Your task to perform on an android device: toggle notifications settings in the gmail app Image 0: 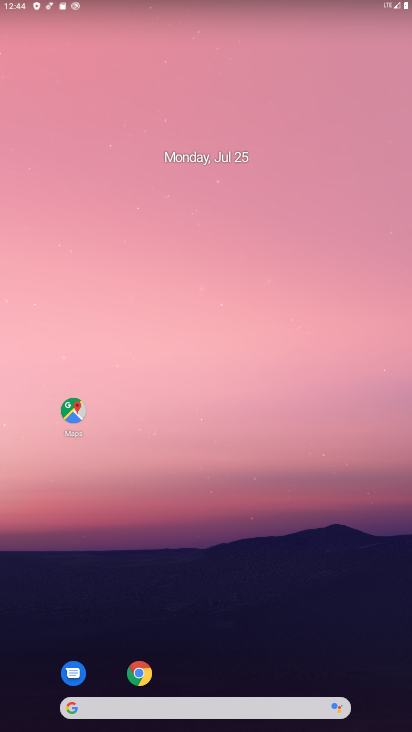
Step 0: drag from (128, 715) to (185, 13)
Your task to perform on an android device: toggle notifications settings in the gmail app Image 1: 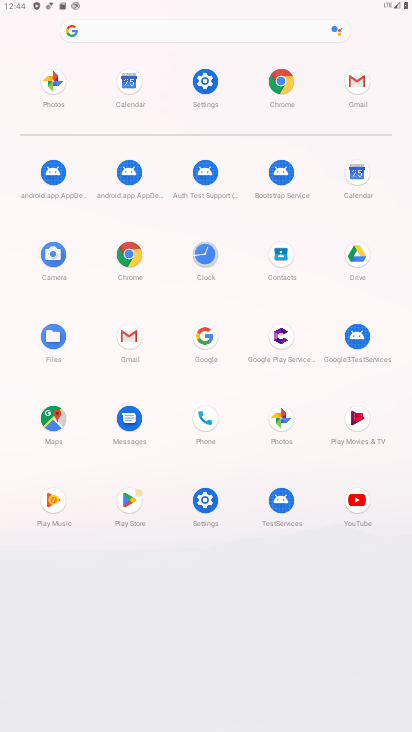
Step 1: click (354, 83)
Your task to perform on an android device: toggle notifications settings in the gmail app Image 2: 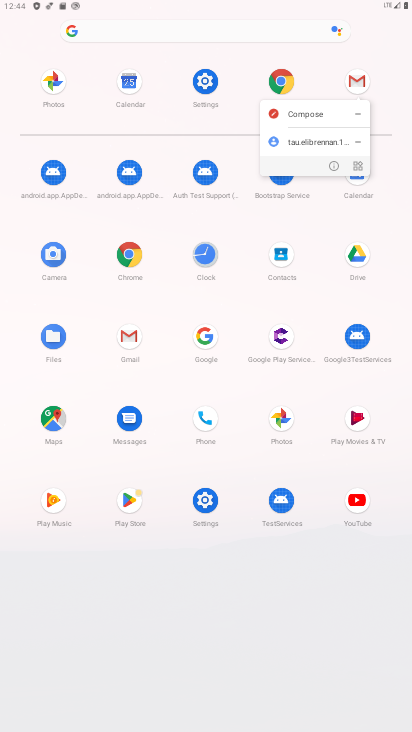
Step 2: click (333, 162)
Your task to perform on an android device: toggle notifications settings in the gmail app Image 3: 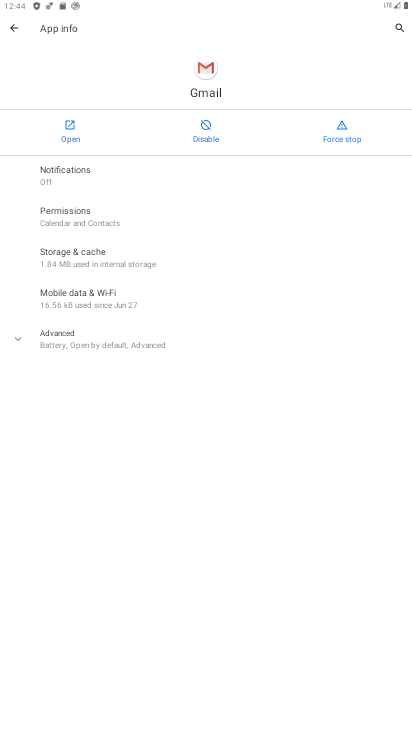
Step 3: task complete